Your task to perform on an android device: allow cookies in the chrome app Image 0: 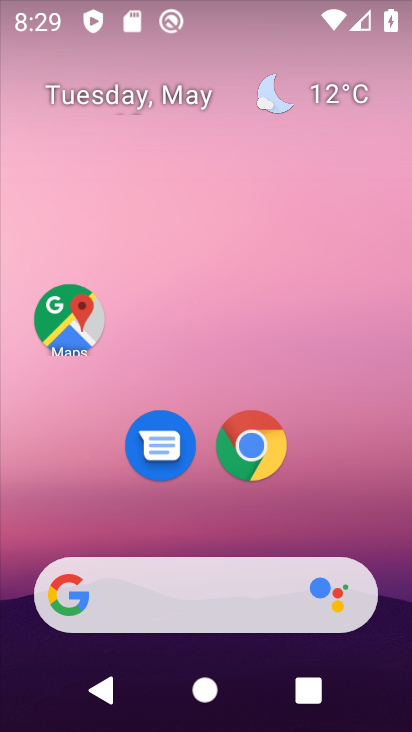
Step 0: click (263, 458)
Your task to perform on an android device: allow cookies in the chrome app Image 1: 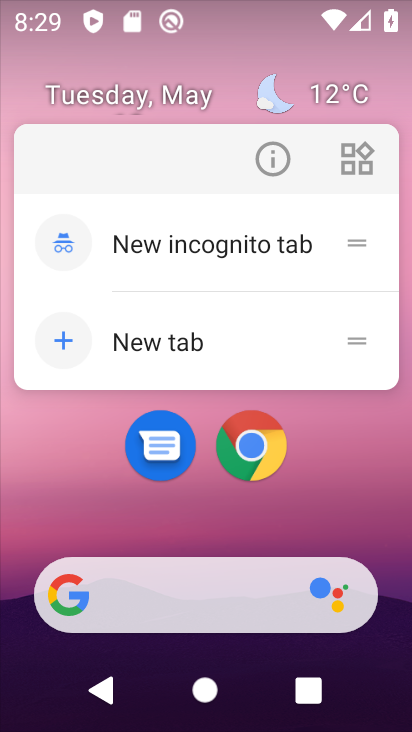
Step 1: click (263, 478)
Your task to perform on an android device: allow cookies in the chrome app Image 2: 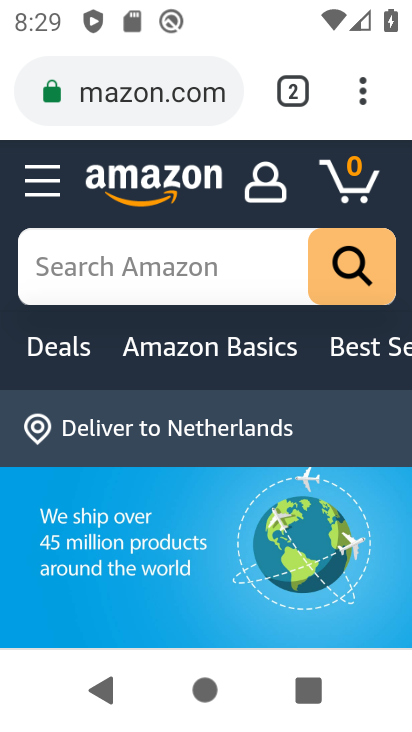
Step 2: click (367, 91)
Your task to perform on an android device: allow cookies in the chrome app Image 3: 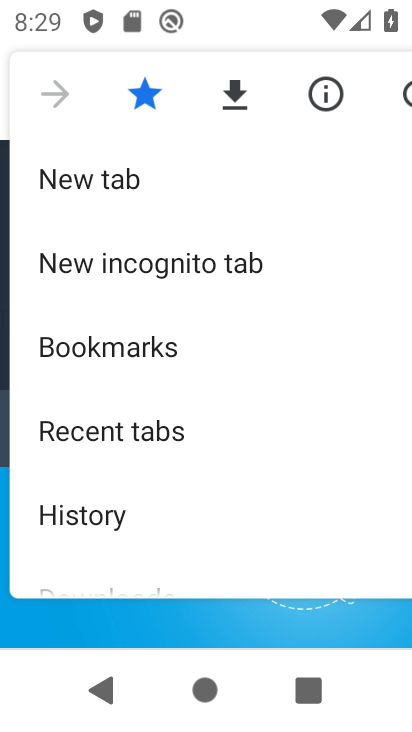
Step 3: drag from (213, 508) to (237, 243)
Your task to perform on an android device: allow cookies in the chrome app Image 4: 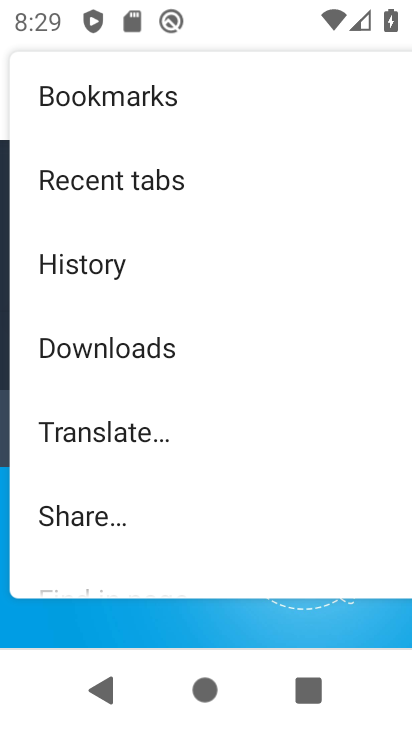
Step 4: drag from (232, 450) to (240, 235)
Your task to perform on an android device: allow cookies in the chrome app Image 5: 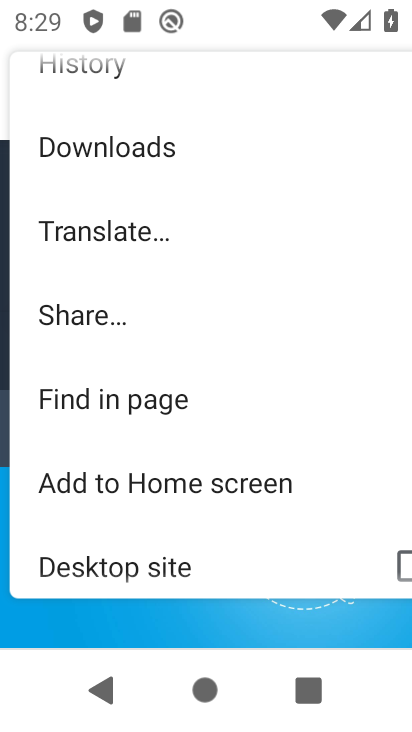
Step 5: drag from (233, 514) to (272, 238)
Your task to perform on an android device: allow cookies in the chrome app Image 6: 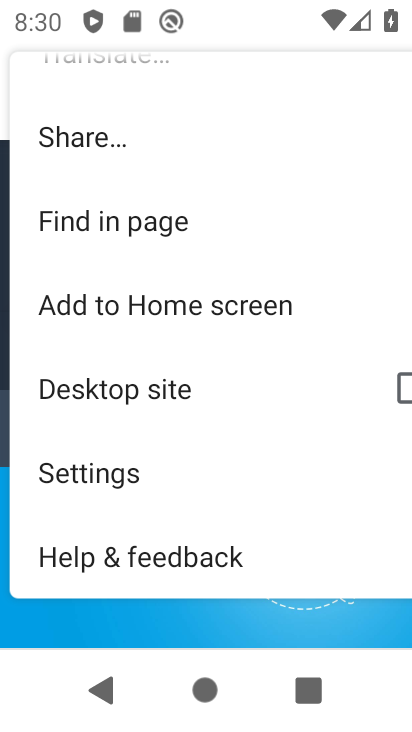
Step 6: click (166, 470)
Your task to perform on an android device: allow cookies in the chrome app Image 7: 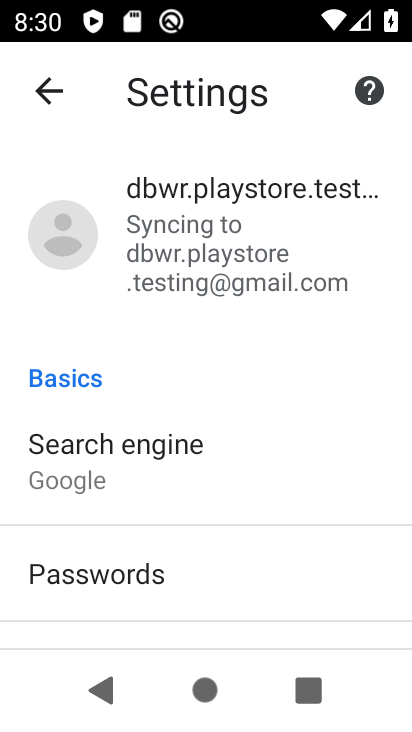
Step 7: drag from (237, 579) to (251, 494)
Your task to perform on an android device: allow cookies in the chrome app Image 8: 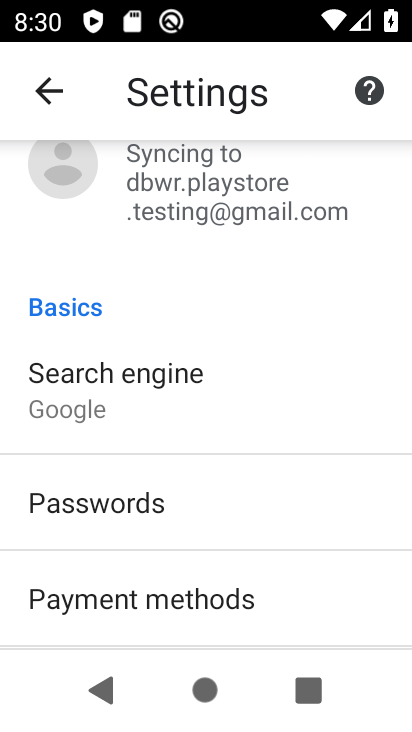
Step 8: drag from (264, 574) to (281, 239)
Your task to perform on an android device: allow cookies in the chrome app Image 9: 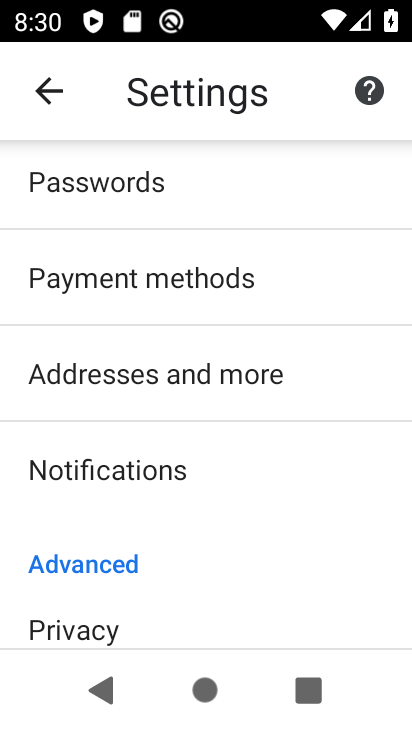
Step 9: drag from (231, 517) to (252, 260)
Your task to perform on an android device: allow cookies in the chrome app Image 10: 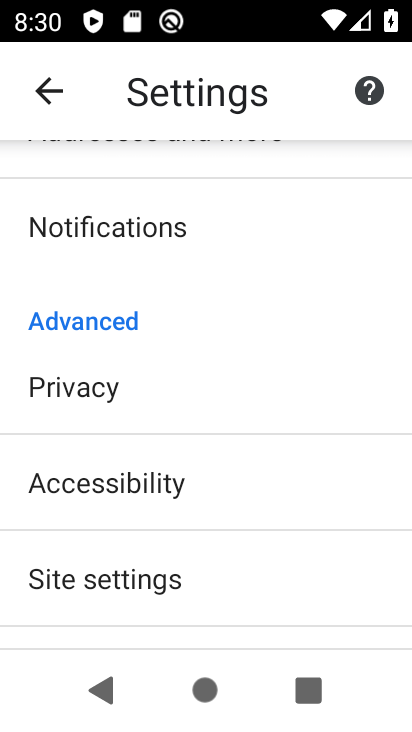
Step 10: drag from (264, 511) to (284, 322)
Your task to perform on an android device: allow cookies in the chrome app Image 11: 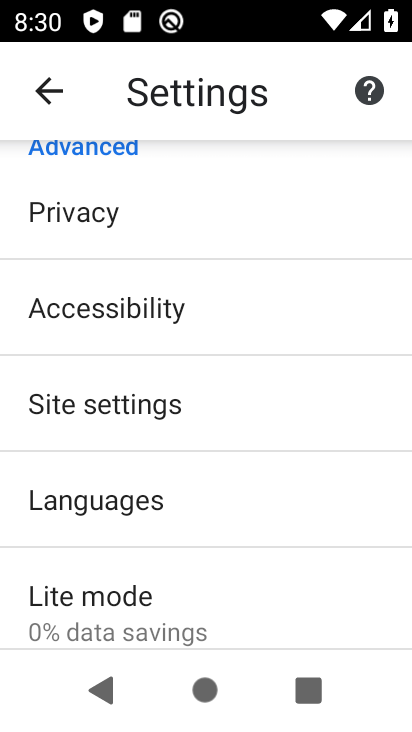
Step 11: click (152, 415)
Your task to perform on an android device: allow cookies in the chrome app Image 12: 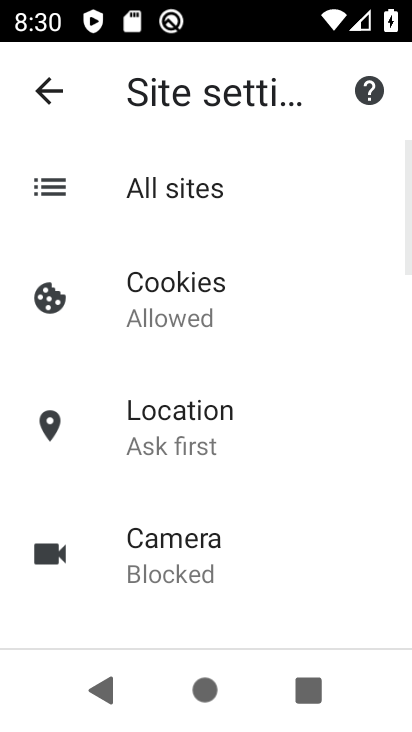
Step 12: click (199, 323)
Your task to perform on an android device: allow cookies in the chrome app Image 13: 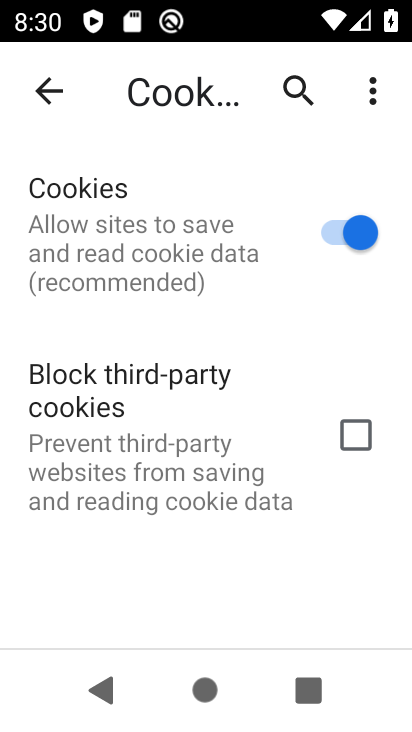
Step 13: task complete